Your task to perform on an android device: Go to CNN.com Image 0: 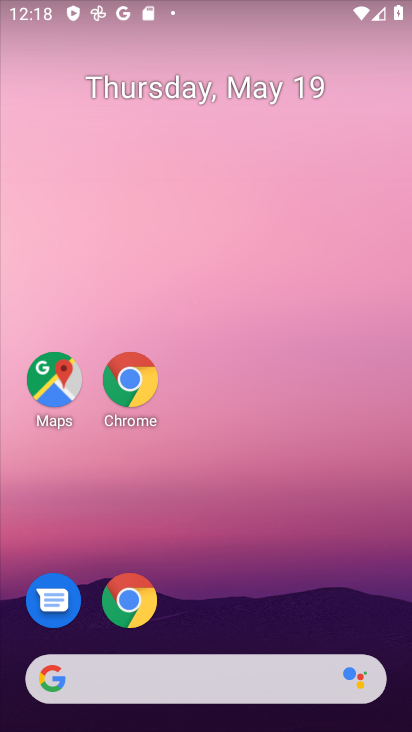
Step 0: drag from (300, 646) to (167, 198)
Your task to perform on an android device: Go to CNN.com Image 1: 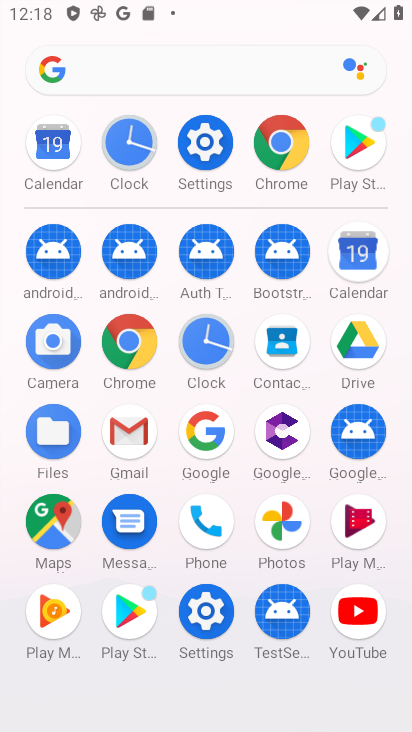
Step 1: click (206, 142)
Your task to perform on an android device: Go to CNN.com Image 2: 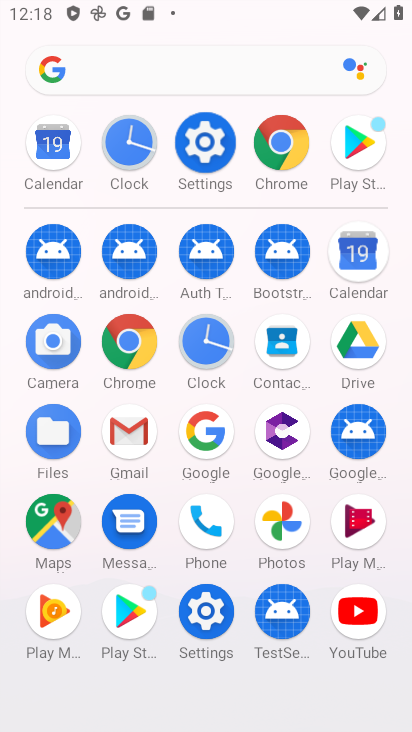
Step 2: click (207, 142)
Your task to perform on an android device: Go to CNN.com Image 3: 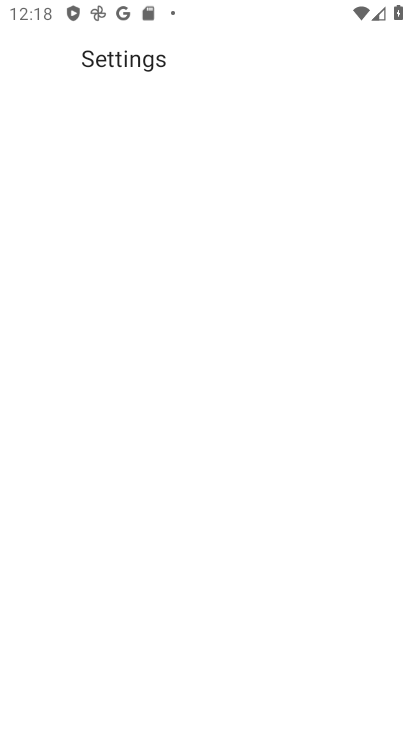
Step 3: click (208, 142)
Your task to perform on an android device: Go to CNN.com Image 4: 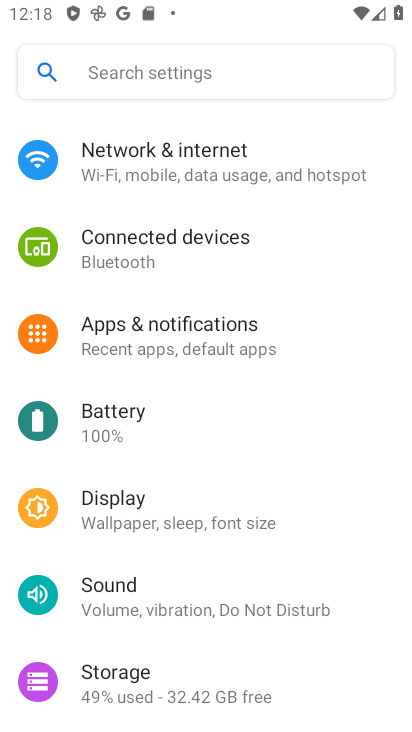
Step 4: click (209, 143)
Your task to perform on an android device: Go to CNN.com Image 5: 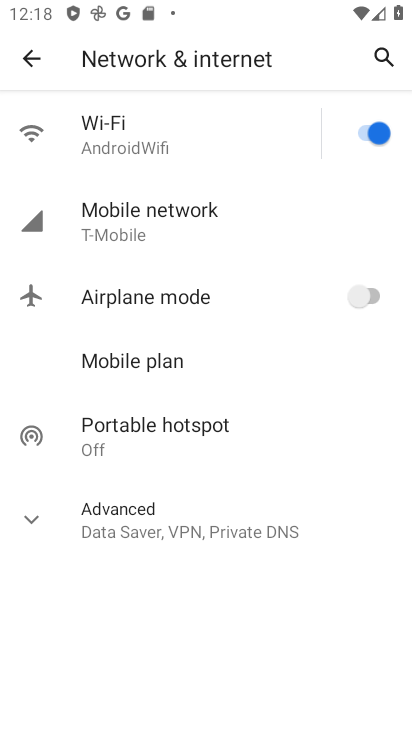
Step 5: click (27, 48)
Your task to perform on an android device: Go to CNN.com Image 6: 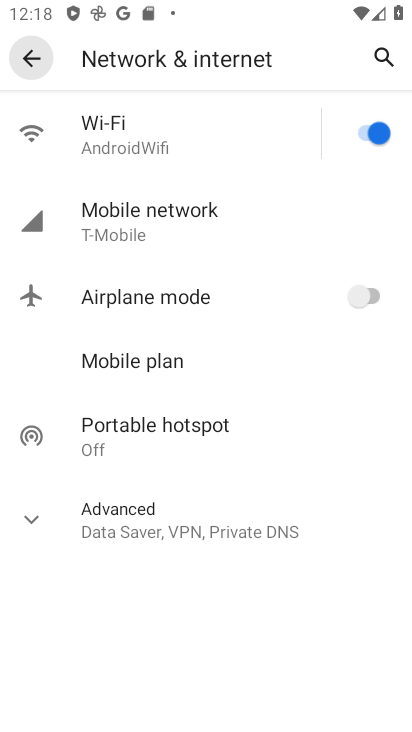
Step 6: click (35, 51)
Your task to perform on an android device: Go to CNN.com Image 7: 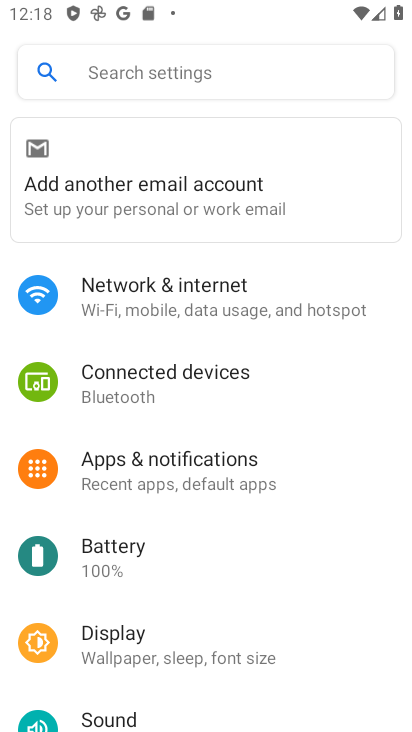
Step 7: click (148, 323)
Your task to perform on an android device: Go to CNN.com Image 8: 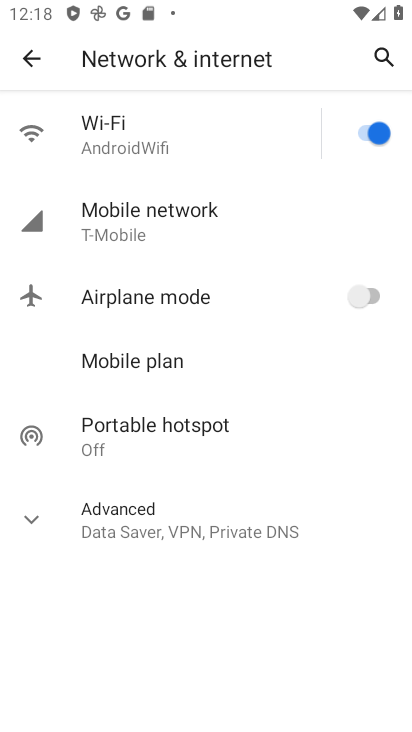
Step 8: click (29, 56)
Your task to perform on an android device: Go to CNN.com Image 9: 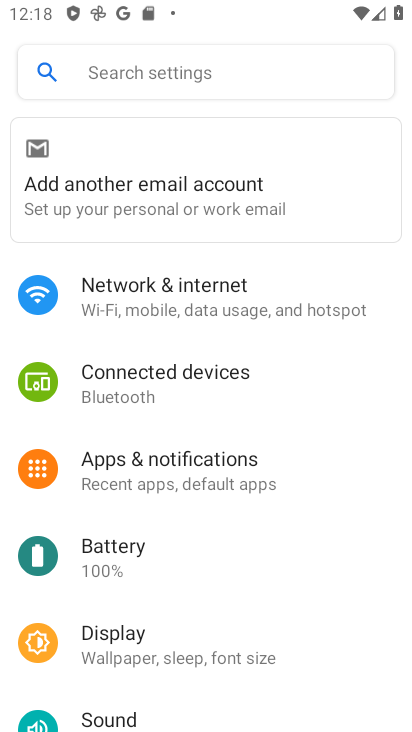
Step 9: press home button
Your task to perform on an android device: Go to CNN.com Image 10: 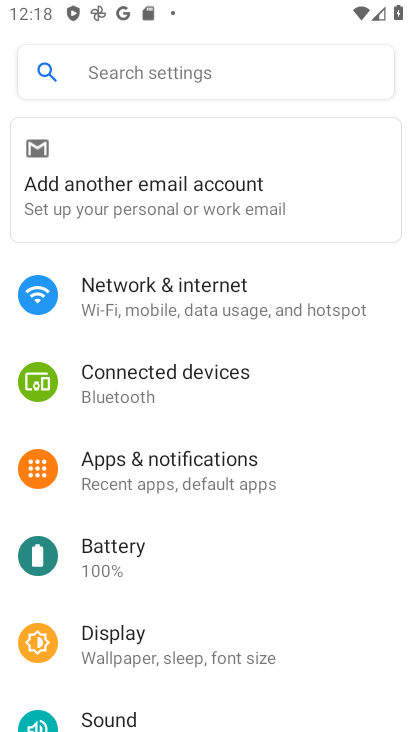
Step 10: press home button
Your task to perform on an android device: Go to CNN.com Image 11: 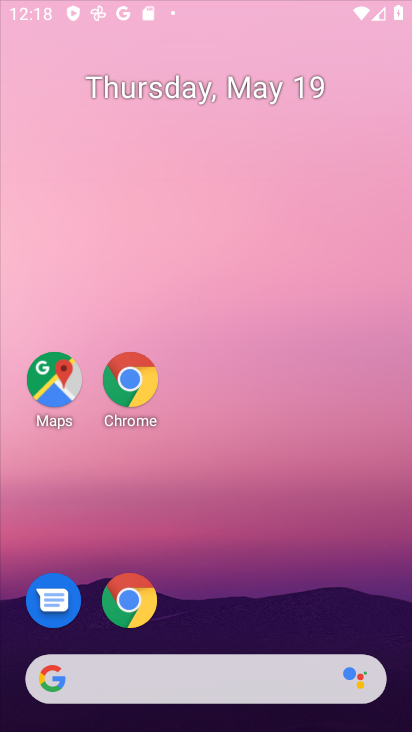
Step 11: press home button
Your task to perform on an android device: Go to CNN.com Image 12: 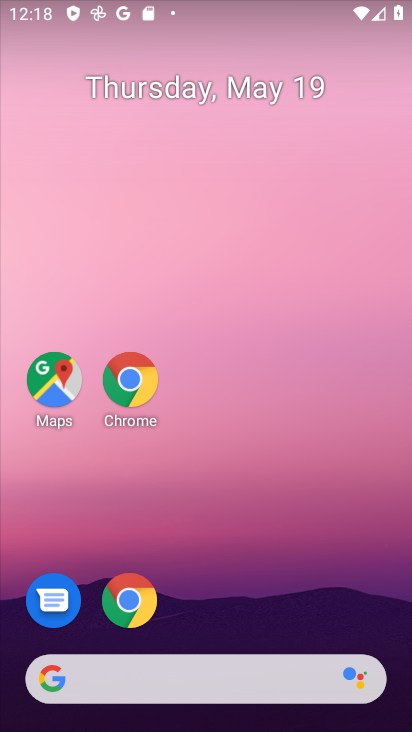
Step 12: drag from (304, 557) to (206, 23)
Your task to perform on an android device: Go to CNN.com Image 13: 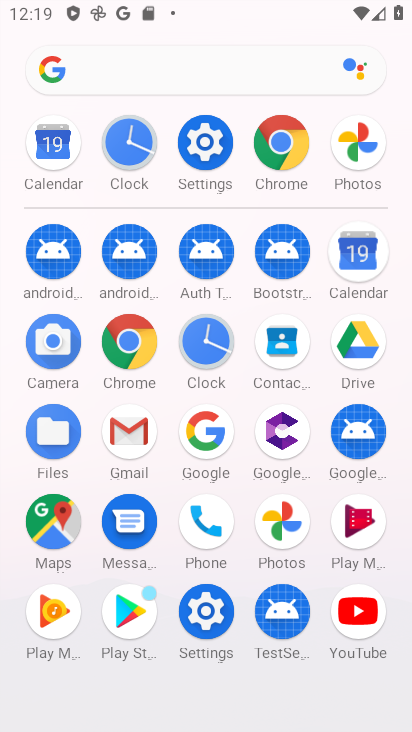
Step 13: click (279, 145)
Your task to perform on an android device: Go to CNN.com Image 14: 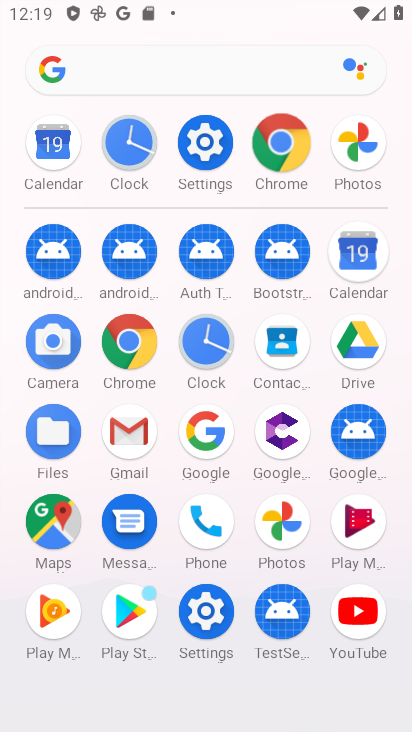
Step 14: click (279, 145)
Your task to perform on an android device: Go to CNN.com Image 15: 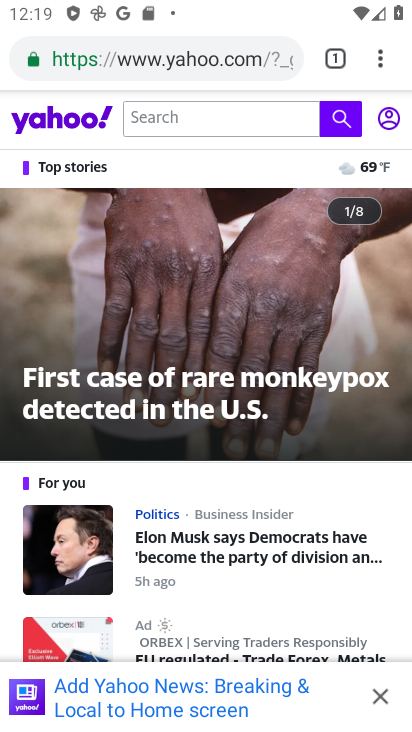
Step 15: drag from (373, 56) to (181, 117)
Your task to perform on an android device: Go to CNN.com Image 16: 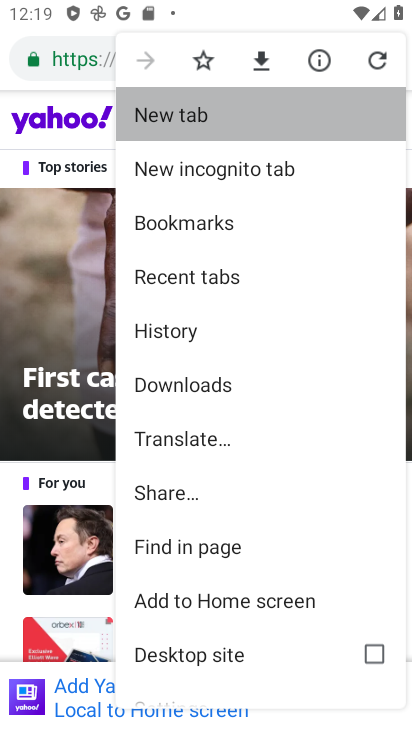
Step 16: click (180, 117)
Your task to perform on an android device: Go to CNN.com Image 17: 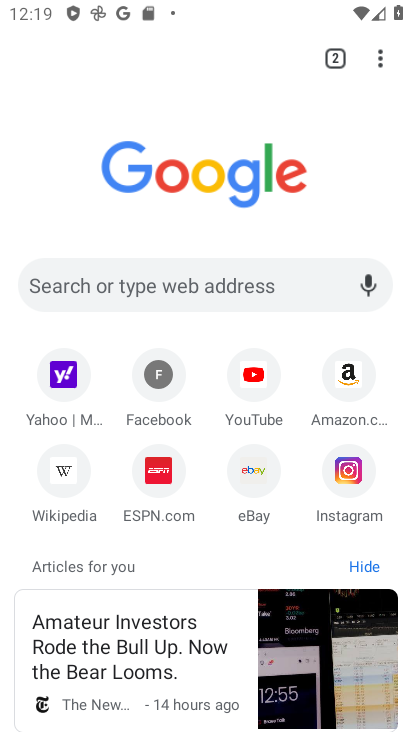
Step 17: type "cnn.com"
Your task to perform on an android device: Go to CNN.com Image 18: 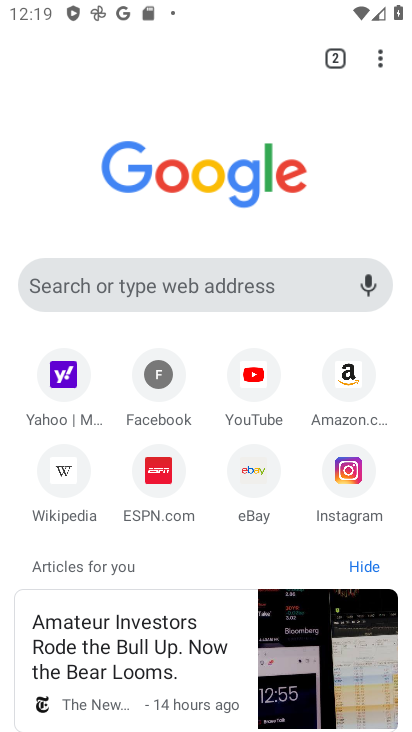
Step 18: click (121, 299)
Your task to perform on an android device: Go to CNN.com Image 19: 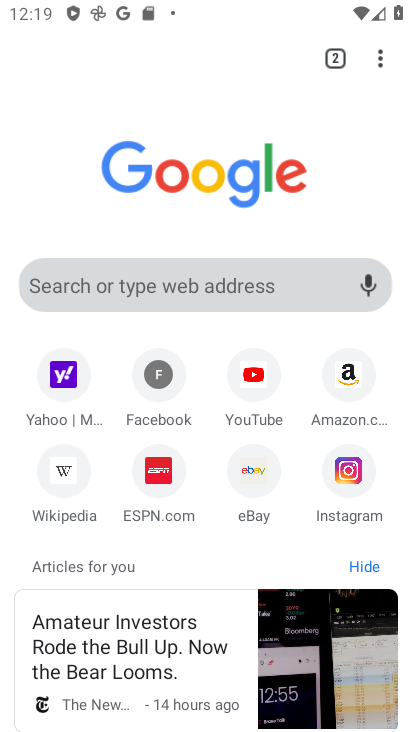
Step 19: click (100, 286)
Your task to perform on an android device: Go to CNN.com Image 20: 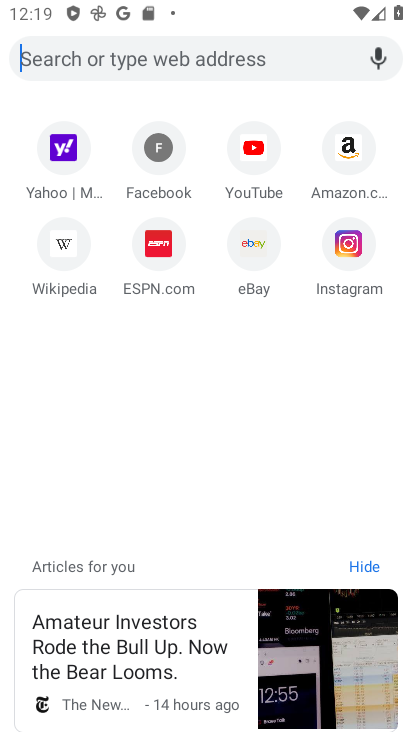
Step 20: click (98, 285)
Your task to perform on an android device: Go to CNN.com Image 21: 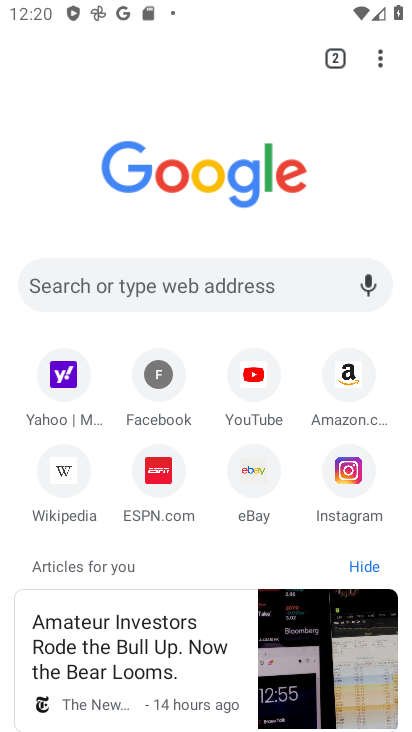
Step 21: type "cnn.com"
Your task to perform on an android device: Go to CNN.com Image 22: 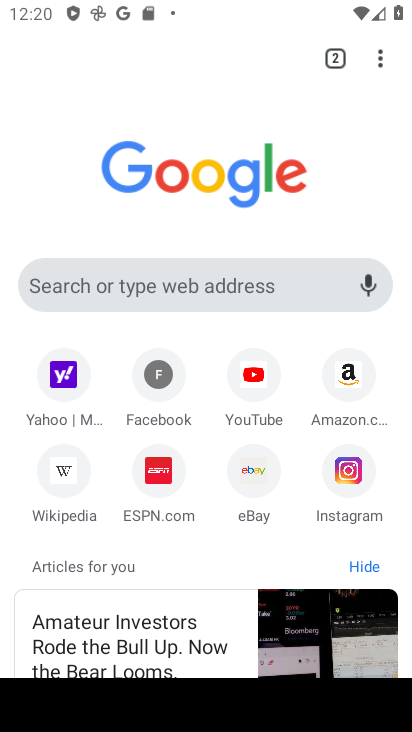
Step 22: click (78, 279)
Your task to perform on an android device: Go to CNN.com Image 23: 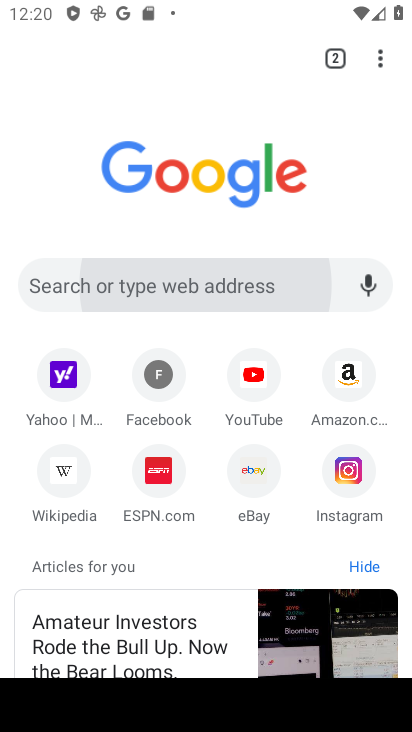
Step 23: click (76, 280)
Your task to perform on an android device: Go to CNN.com Image 24: 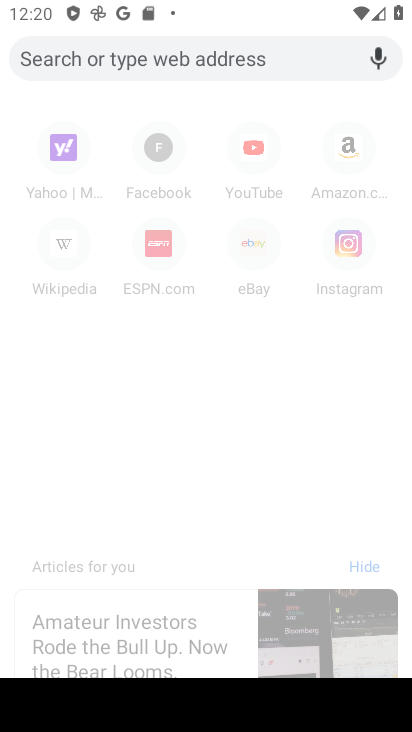
Step 24: type "cnn.com"
Your task to perform on an android device: Go to CNN.com Image 25: 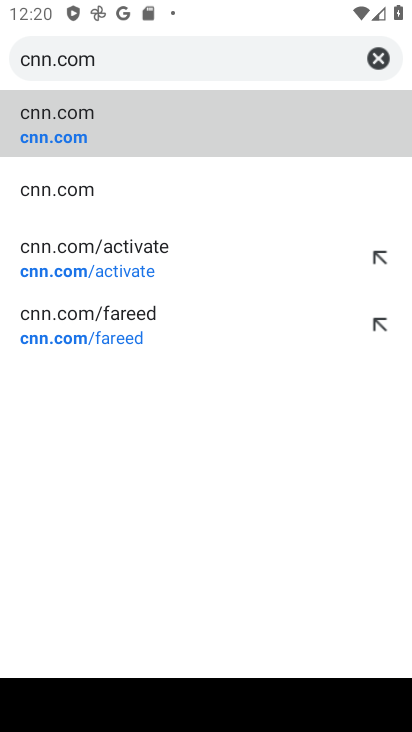
Step 25: click (47, 134)
Your task to perform on an android device: Go to CNN.com Image 26: 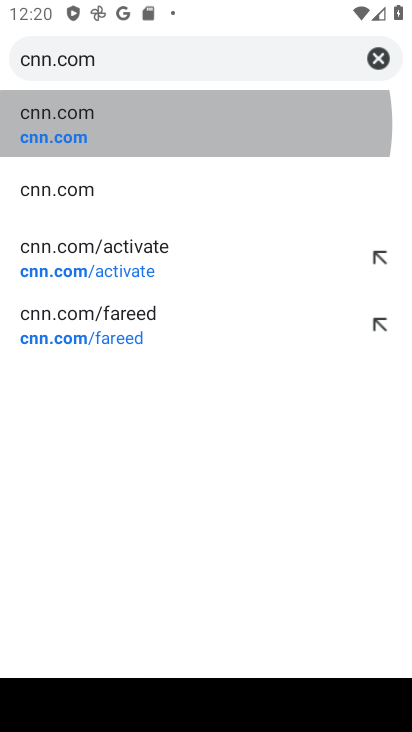
Step 26: click (47, 134)
Your task to perform on an android device: Go to CNN.com Image 27: 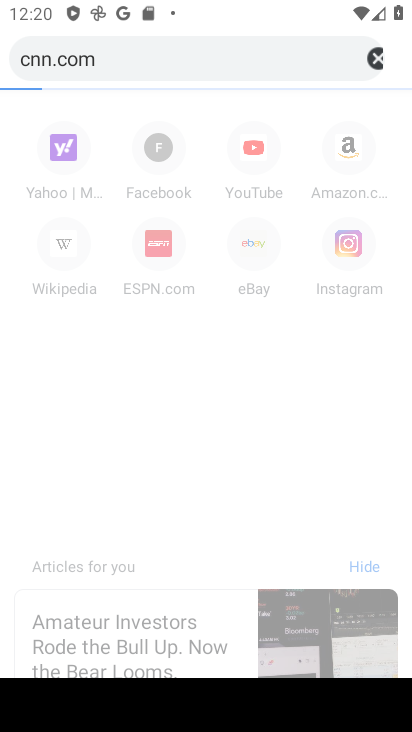
Step 27: click (47, 134)
Your task to perform on an android device: Go to CNN.com Image 28: 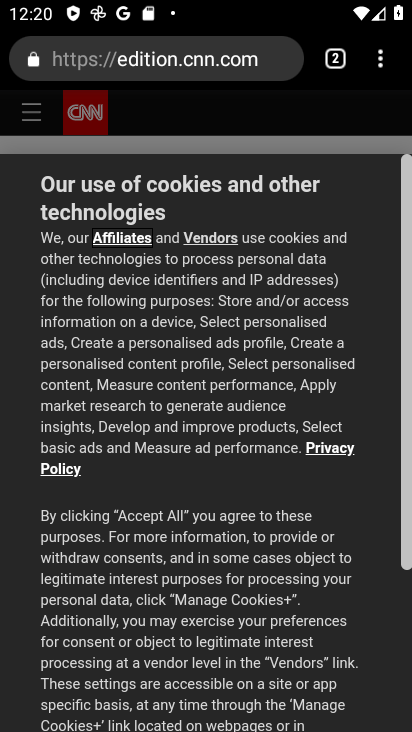
Step 28: task complete